Your task to perform on an android device: turn on priority inbox in the gmail app Image 0: 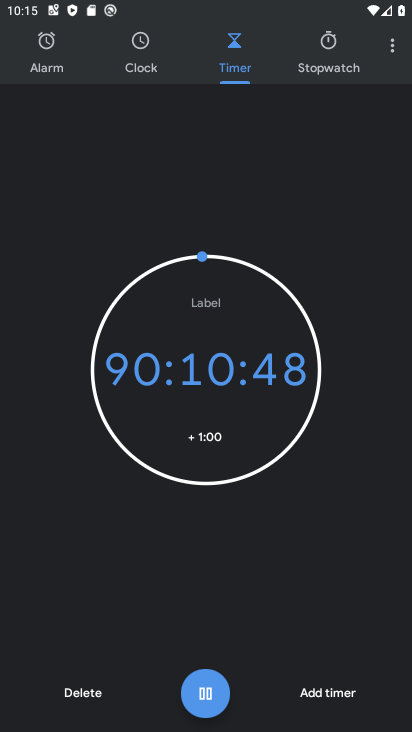
Step 0: press home button
Your task to perform on an android device: turn on priority inbox in the gmail app Image 1: 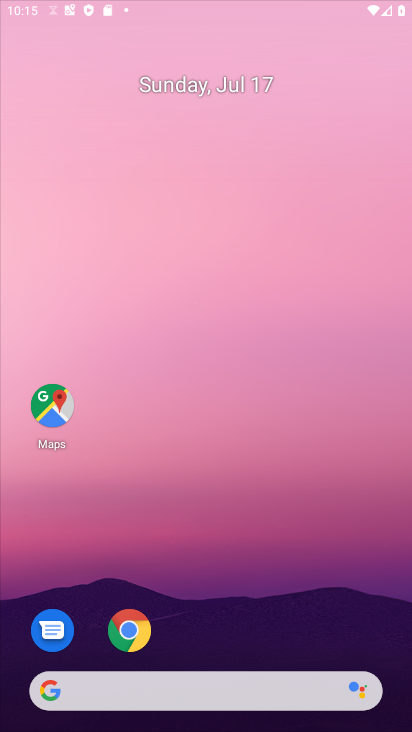
Step 1: drag from (352, 678) to (374, 1)
Your task to perform on an android device: turn on priority inbox in the gmail app Image 2: 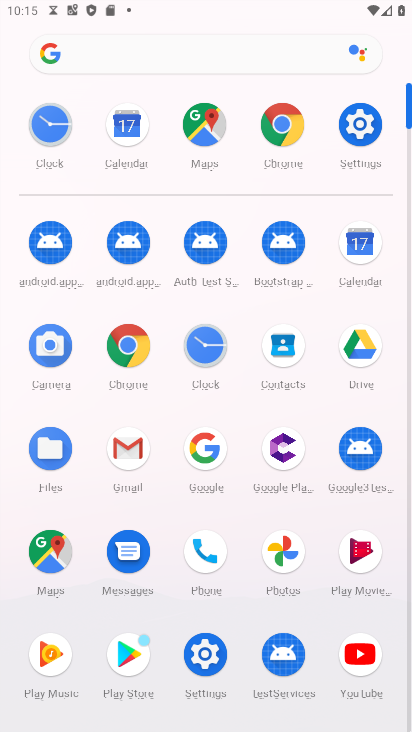
Step 2: click (140, 443)
Your task to perform on an android device: turn on priority inbox in the gmail app Image 3: 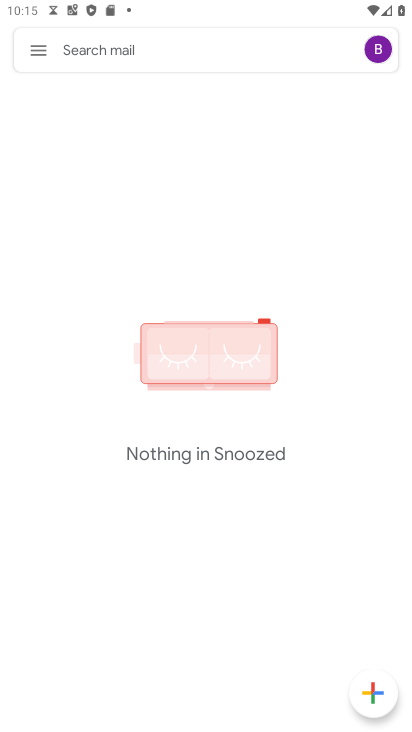
Step 3: click (41, 50)
Your task to perform on an android device: turn on priority inbox in the gmail app Image 4: 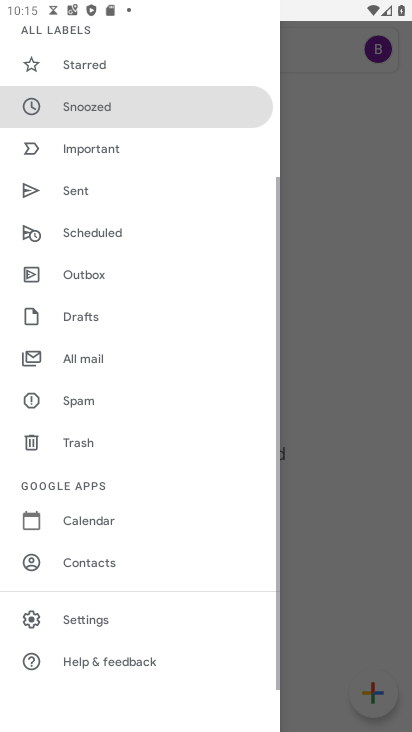
Step 4: click (106, 615)
Your task to perform on an android device: turn on priority inbox in the gmail app Image 5: 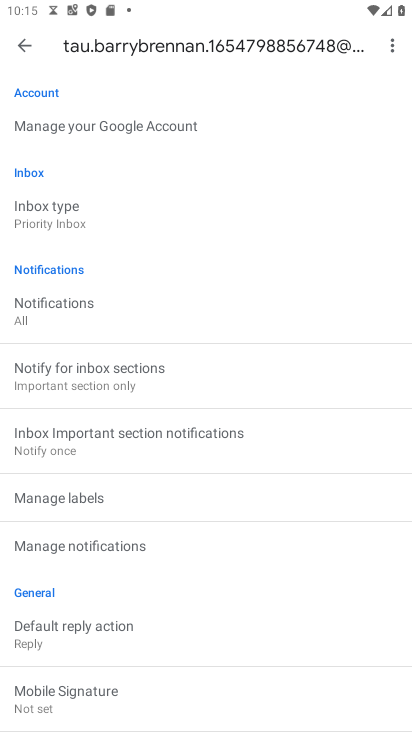
Step 5: task complete